Your task to perform on an android device: find snoozed emails in the gmail app Image 0: 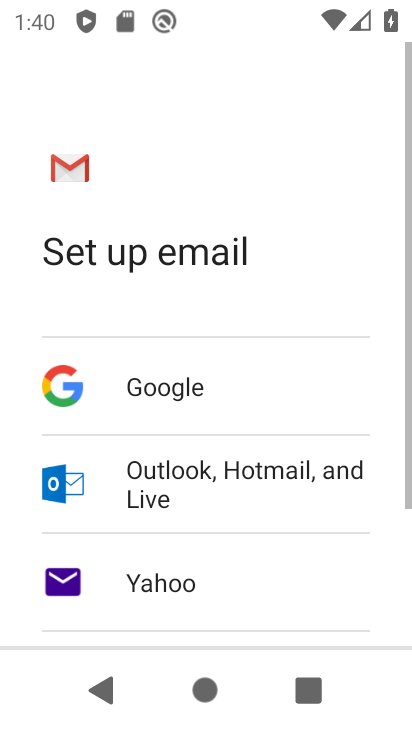
Step 0: press home button
Your task to perform on an android device: find snoozed emails in the gmail app Image 1: 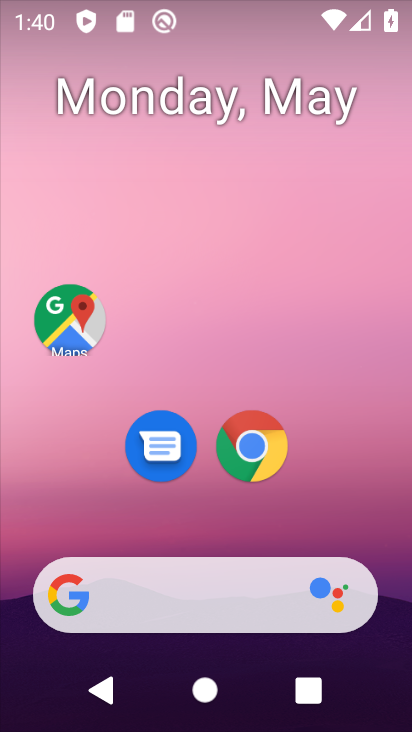
Step 1: drag from (340, 498) to (347, 117)
Your task to perform on an android device: find snoozed emails in the gmail app Image 2: 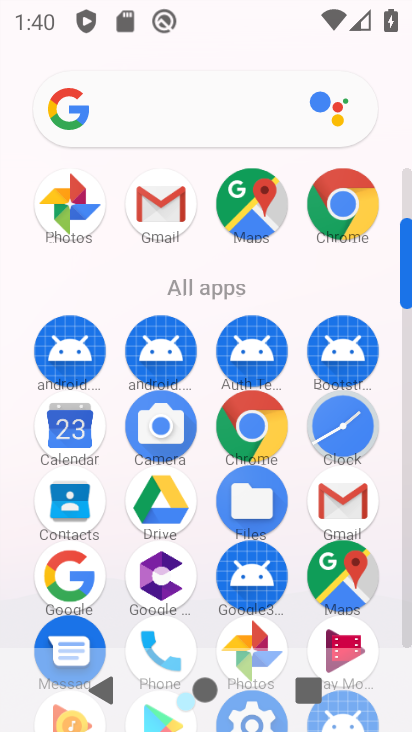
Step 2: click (341, 519)
Your task to perform on an android device: find snoozed emails in the gmail app Image 3: 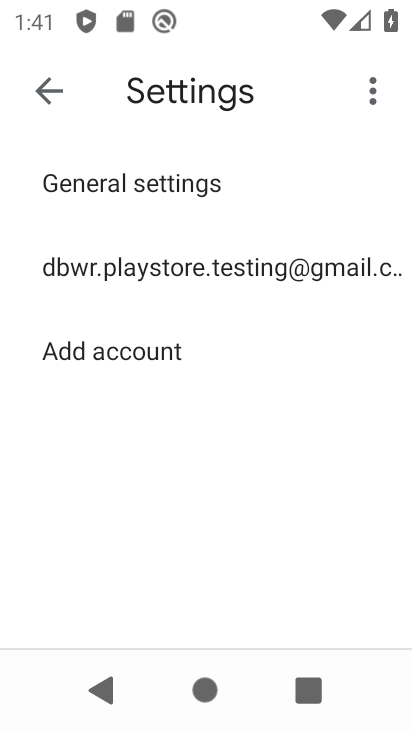
Step 3: click (142, 270)
Your task to perform on an android device: find snoozed emails in the gmail app Image 4: 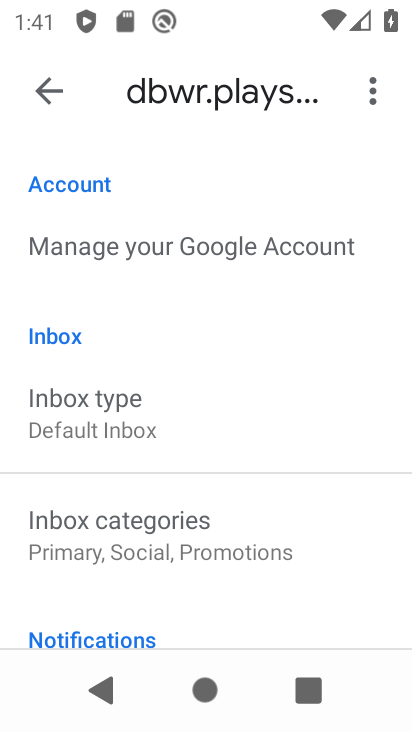
Step 4: click (62, 86)
Your task to perform on an android device: find snoozed emails in the gmail app Image 5: 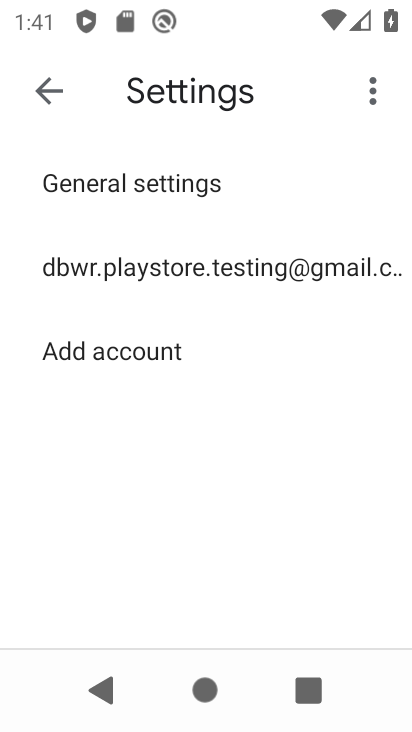
Step 5: click (60, 84)
Your task to perform on an android device: find snoozed emails in the gmail app Image 6: 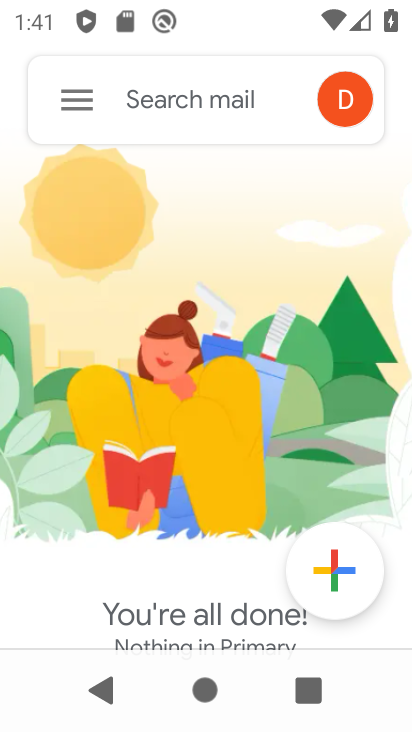
Step 6: click (60, 84)
Your task to perform on an android device: find snoozed emails in the gmail app Image 7: 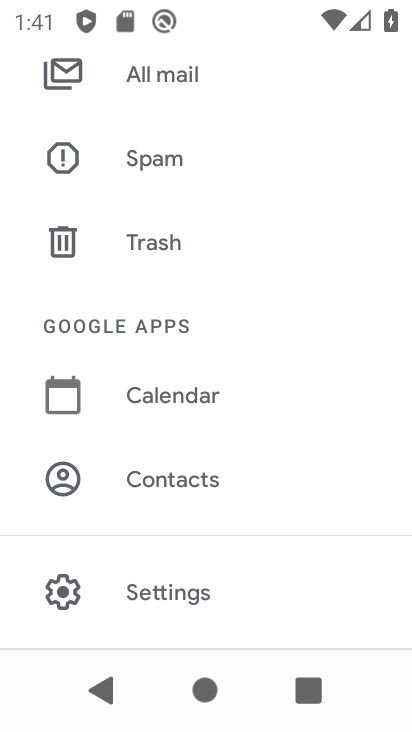
Step 7: drag from (199, 145) to (202, 492)
Your task to perform on an android device: find snoozed emails in the gmail app Image 8: 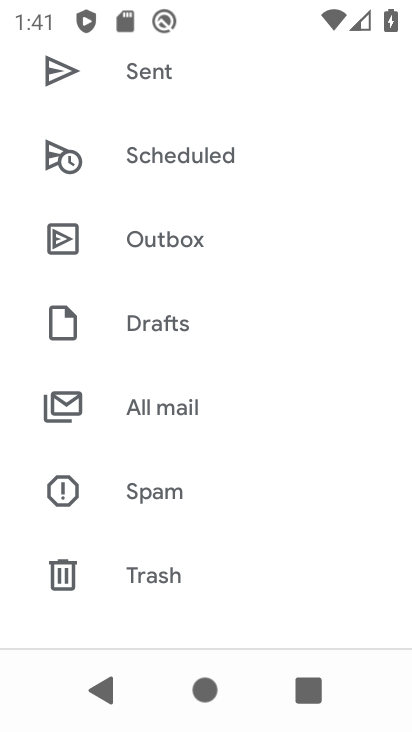
Step 8: drag from (209, 221) to (212, 407)
Your task to perform on an android device: find snoozed emails in the gmail app Image 9: 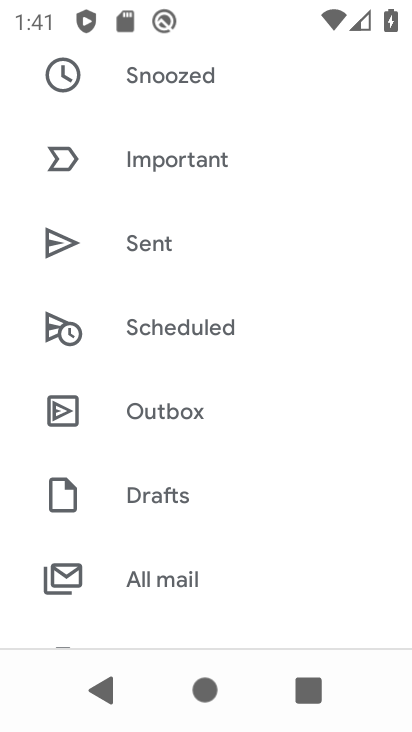
Step 9: click (202, 67)
Your task to perform on an android device: find snoozed emails in the gmail app Image 10: 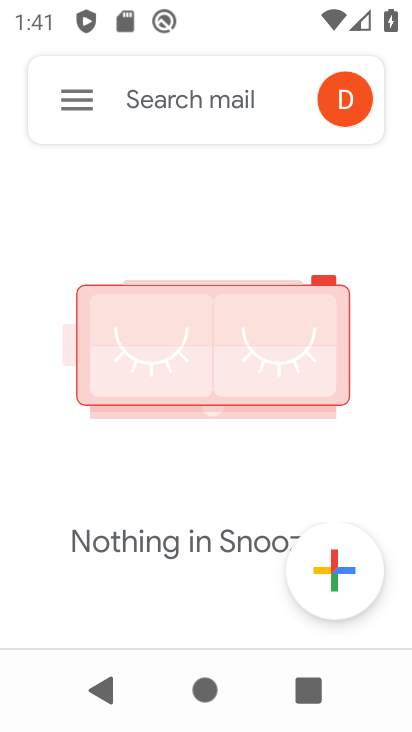
Step 10: click (61, 114)
Your task to perform on an android device: find snoozed emails in the gmail app Image 11: 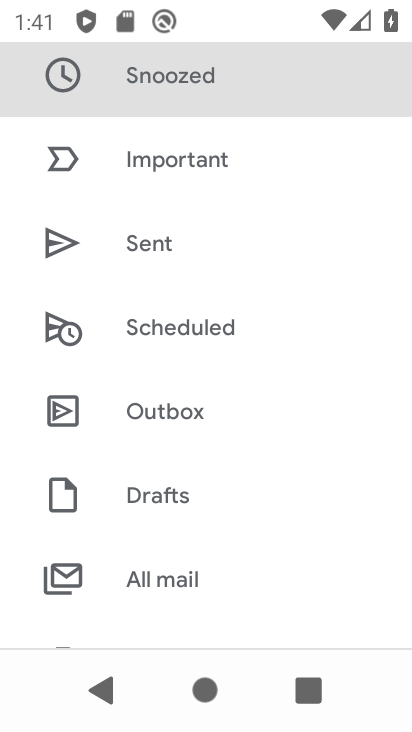
Step 11: task complete